Your task to perform on an android device: open device folders in google photos Image 0: 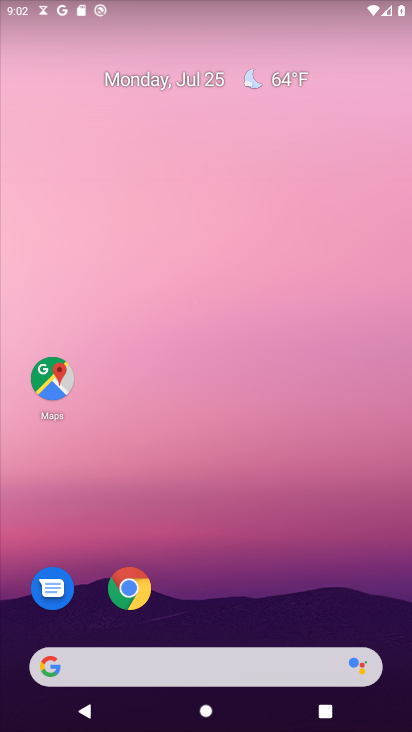
Step 0: drag from (171, 656) to (178, 54)
Your task to perform on an android device: open device folders in google photos Image 1: 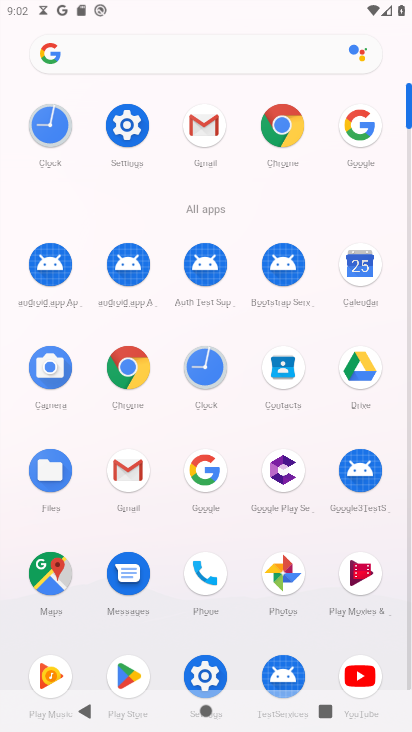
Step 1: click (281, 578)
Your task to perform on an android device: open device folders in google photos Image 2: 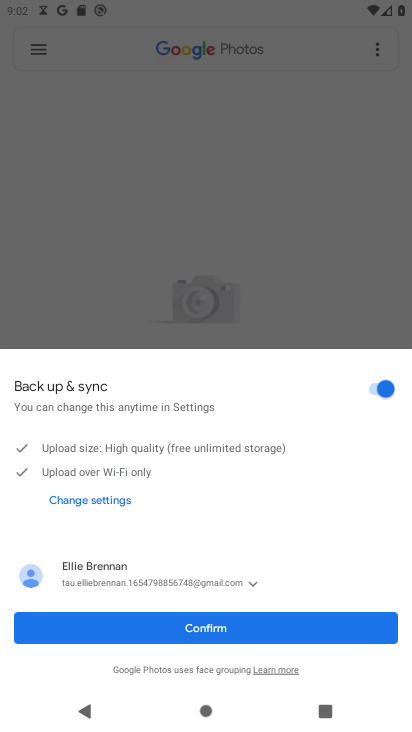
Step 2: click (249, 626)
Your task to perform on an android device: open device folders in google photos Image 3: 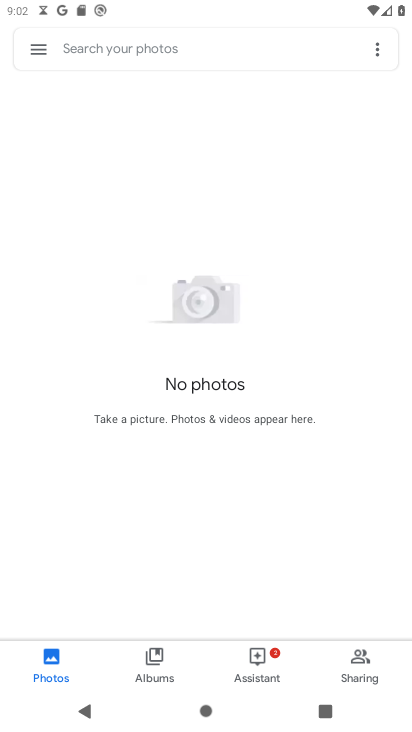
Step 3: click (147, 665)
Your task to perform on an android device: open device folders in google photos Image 4: 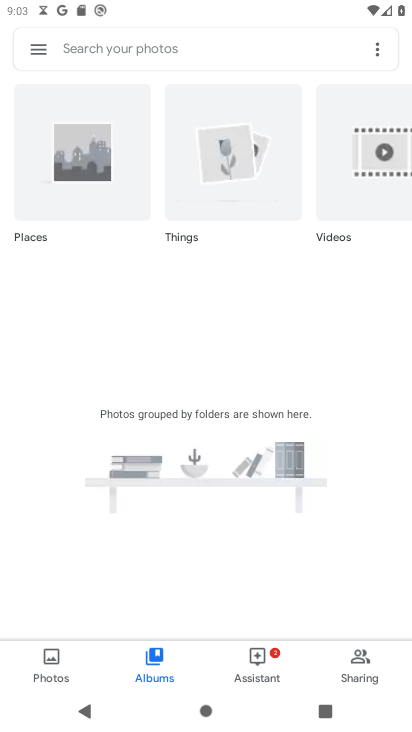
Step 4: task complete